Your task to perform on an android device: Open settings Image 0: 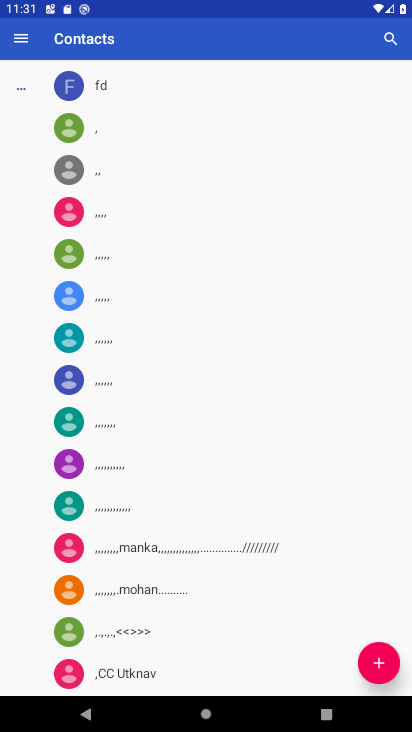
Step 0: press home button
Your task to perform on an android device: Open settings Image 1: 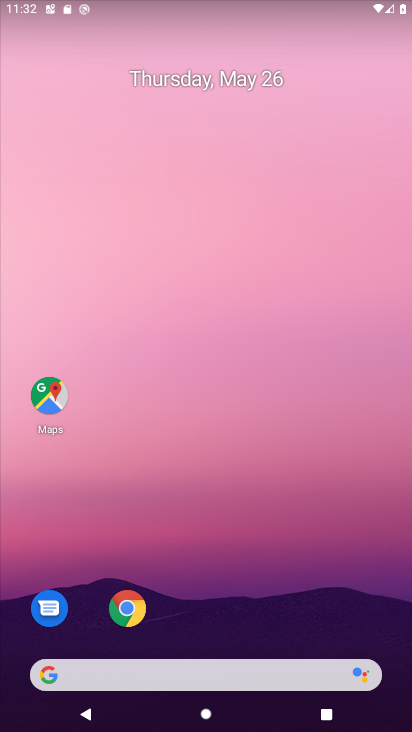
Step 1: drag from (344, 464) to (323, 380)
Your task to perform on an android device: Open settings Image 2: 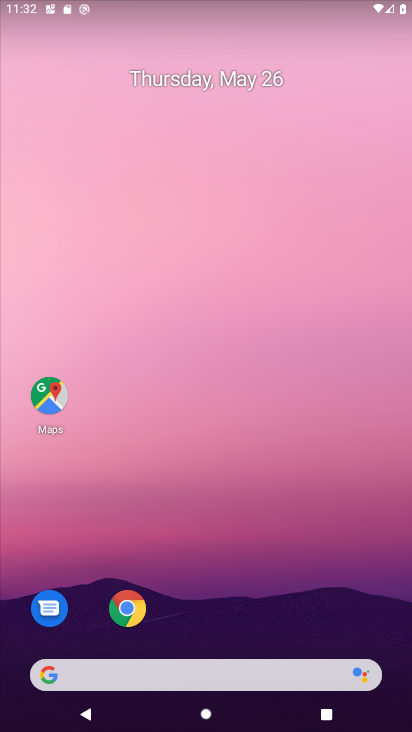
Step 2: drag from (391, 680) to (335, 267)
Your task to perform on an android device: Open settings Image 3: 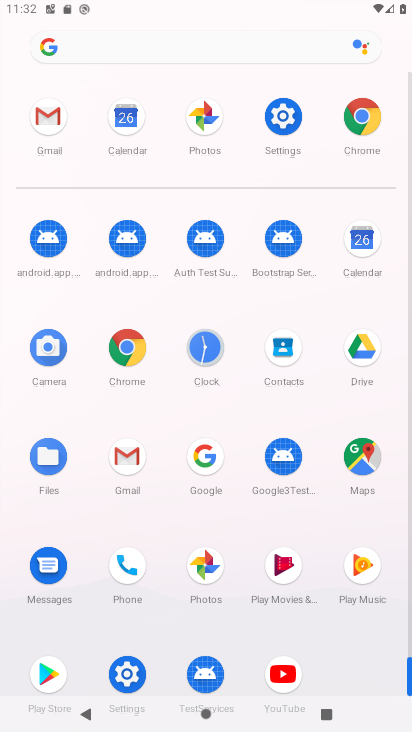
Step 3: click (271, 108)
Your task to perform on an android device: Open settings Image 4: 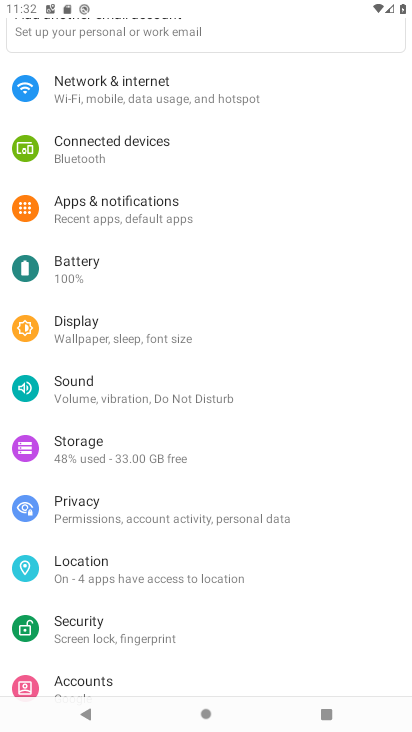
Step 4: task complete